Your task to perform on an android device: toggle airplane mode Image 0: 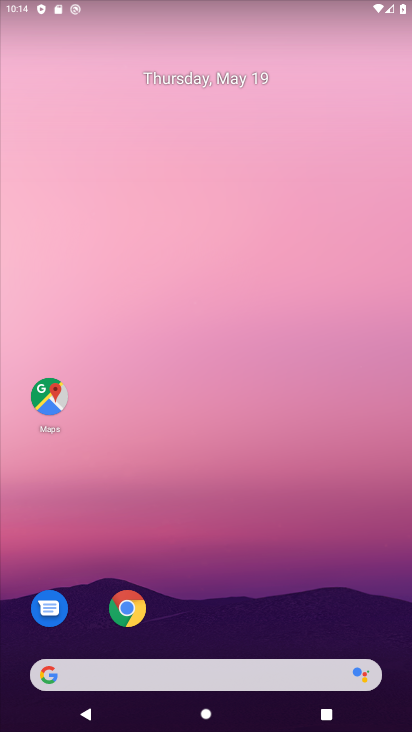
Step 0: drag from (374, 535) to (373, 416)
Your task to perform on an android device: toggle airplane mode Image 1: 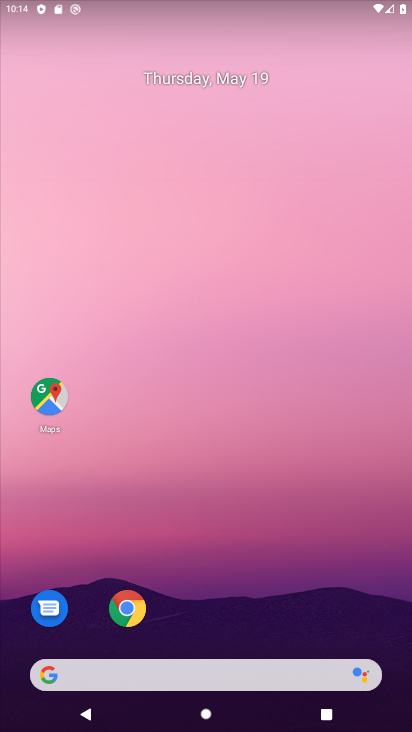
Step 1: drag from (397, 692) to (325, 150)
Your task to perform on an android device: toggle airplane mode Image 2: 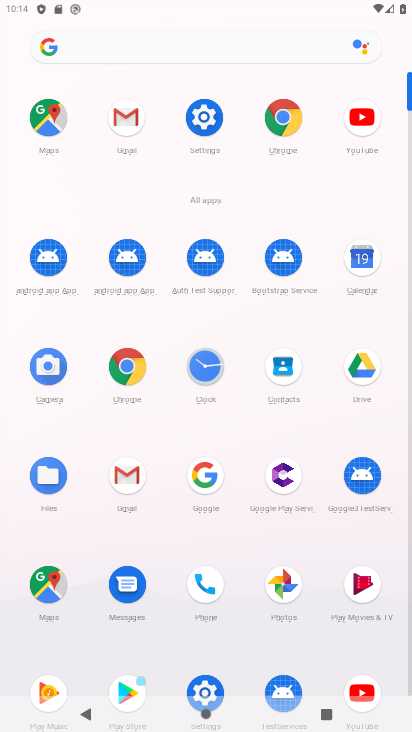
Step 2: click (210, 122)
Your task to perform on an android device: toggle airplane mode Image 3: 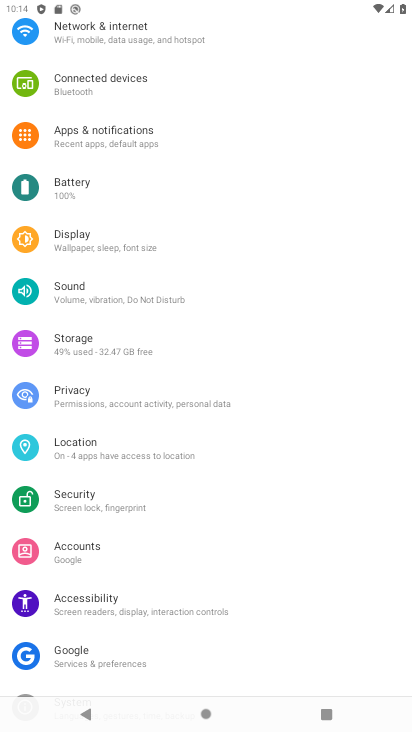
Step 3: drag from (278, 128) to (269, 248)
Your task to perform on an android device: toggle airplane mode Image 4: 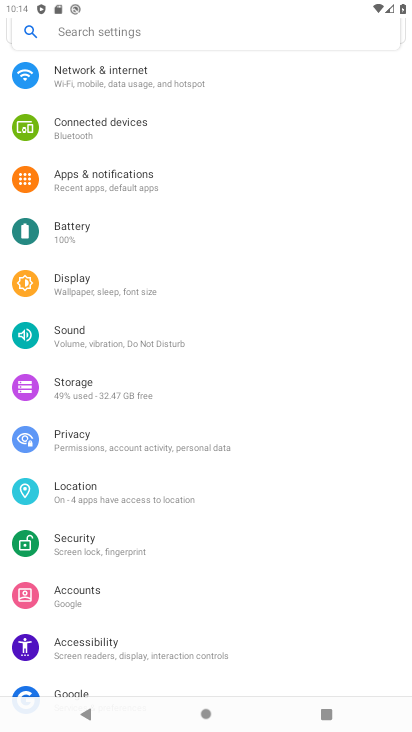
Step 4: click (90, 70)
Your task to perform on an android device: toggle airplane mode Image 5: 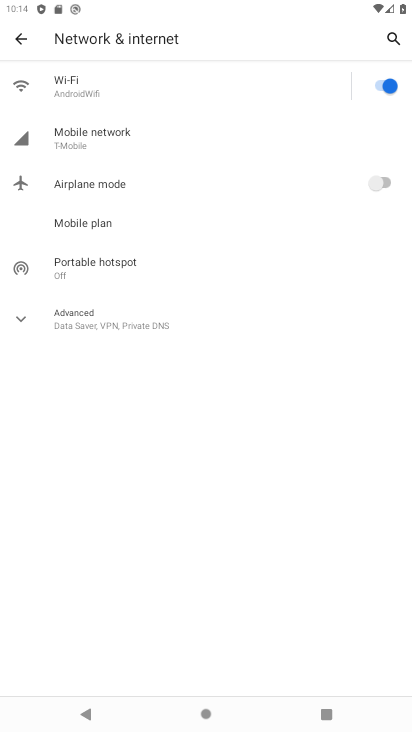
Step 5: click (389, 178)
Your task to perform on an android device: toggle airplane mode Image 6: 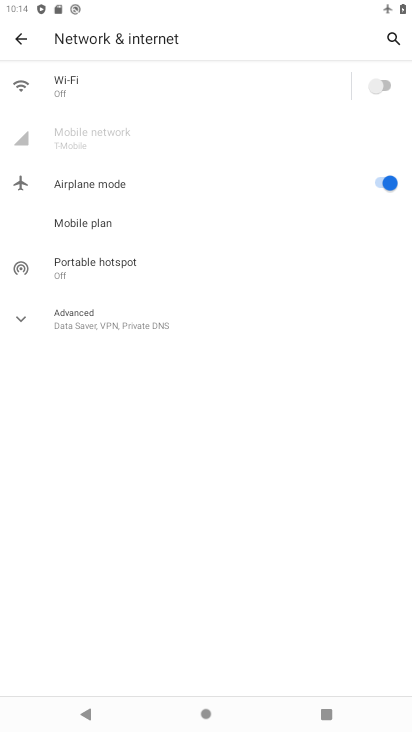
Step 6: task complete